Your task to perform on an android device: Open Wikipedia Image 0: 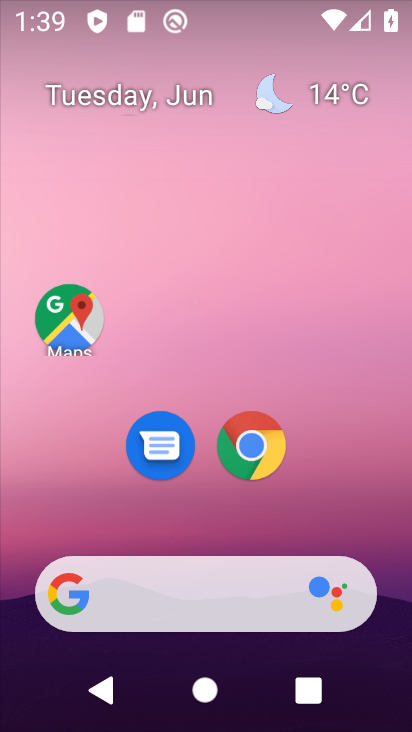
Step 0: drag from (368, 506) to (359, 92)
Your task to perform on an android device: Open Wikipedia Image 1: 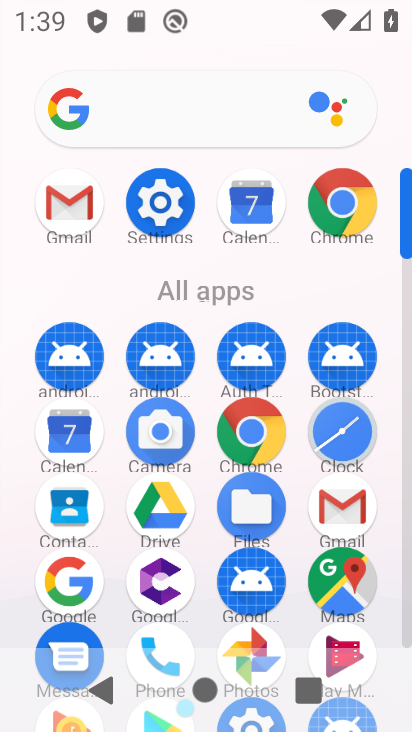
Step 1: click (343, 207)
Your task to perform on an android device: Open Wikipedia Image 2: 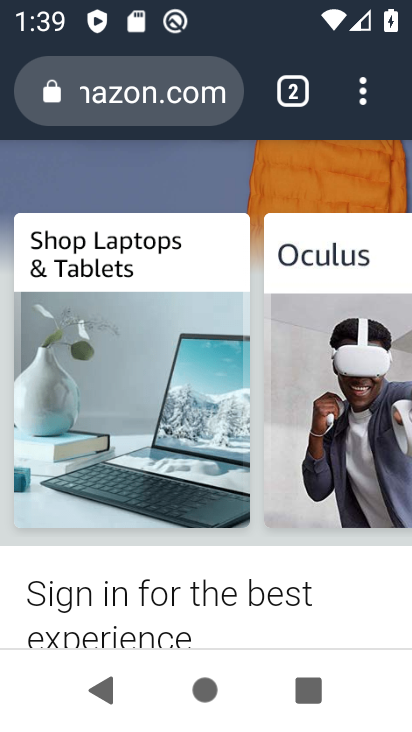
Step 2: click (297, 102)
Your task to perform on an android device: Open Wikipedia Image 3: 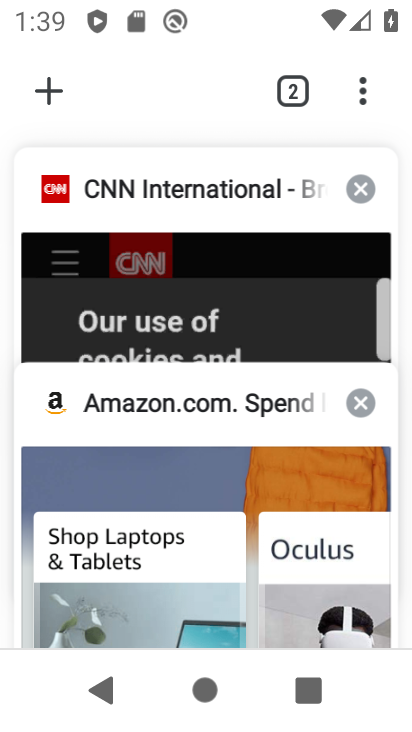
Step 3: click (46, 95)
Your task to perform on an android device: Open Wikipedia Image 4: 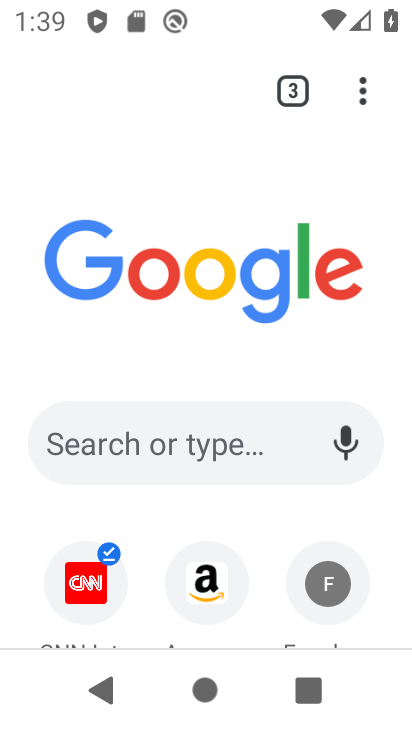
Step 4: drag from (276, 483) to (282, 199)
Your task to perform on an android device: Open Wikipedia Image 5: 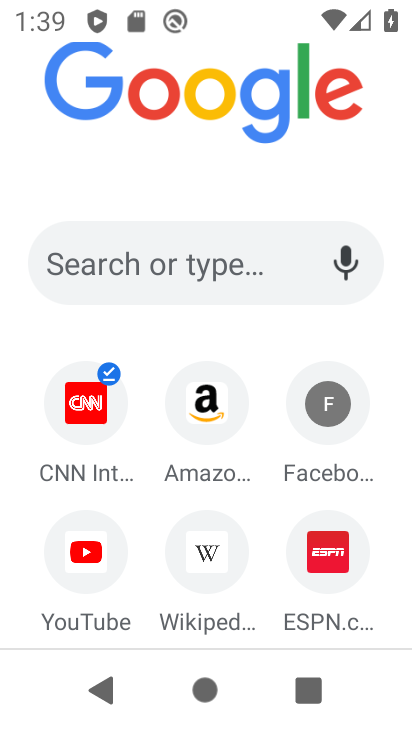
Step 5: click (200, 570)
Your task to perform on an android device: Open Wikipedia Image 6: 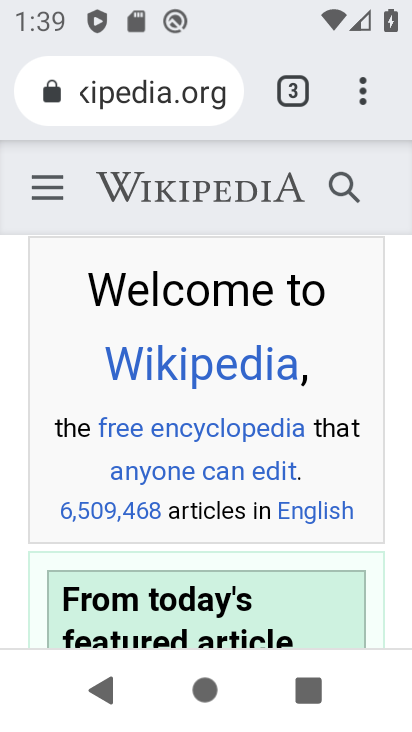
Step 6: task complete